Your task to perform on an android device: Open network settings Image 0: 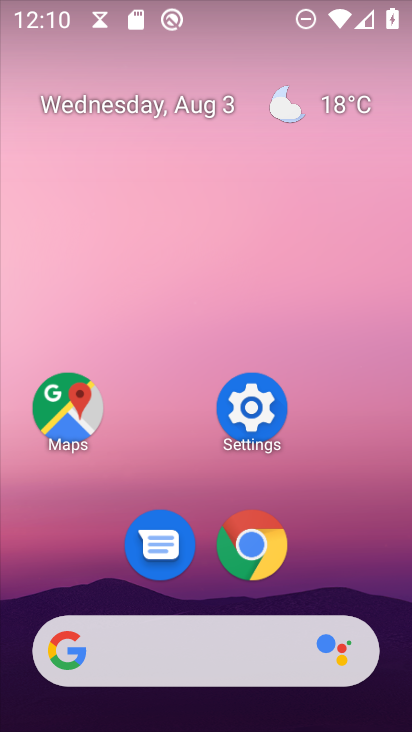
Step 0: click (247, 410)
Your task to perform on an android device: Open network settings Image 1: 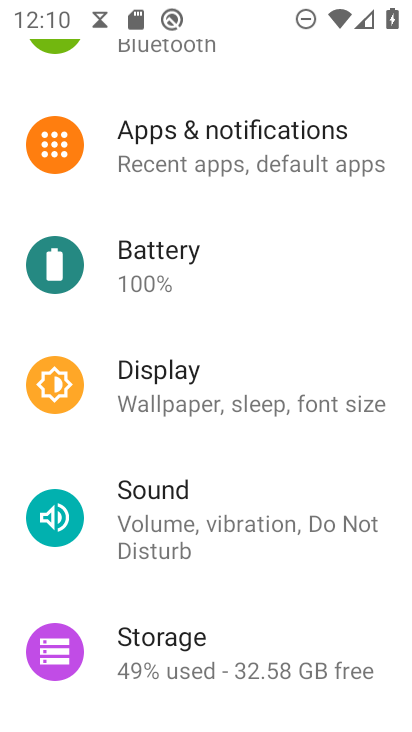
Step 1: drag from (299, 246) to (309, 691)
Your task to perform on an android device: Open network settings Image 2: 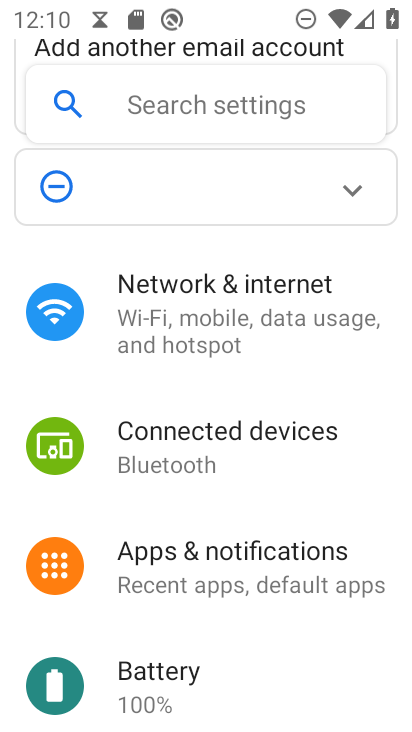
Step 2: click (229, 318)
Your task to perform on an android device: Open network settings Image 3: 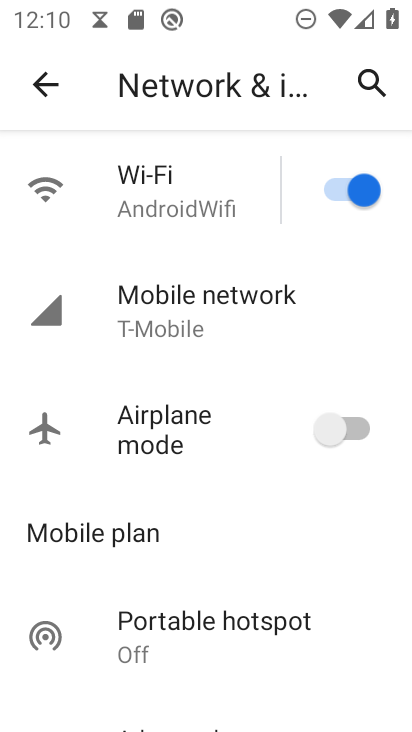
Step 3: click (193, 322)
Your task to perform on an android device: Open network settings Image 4: 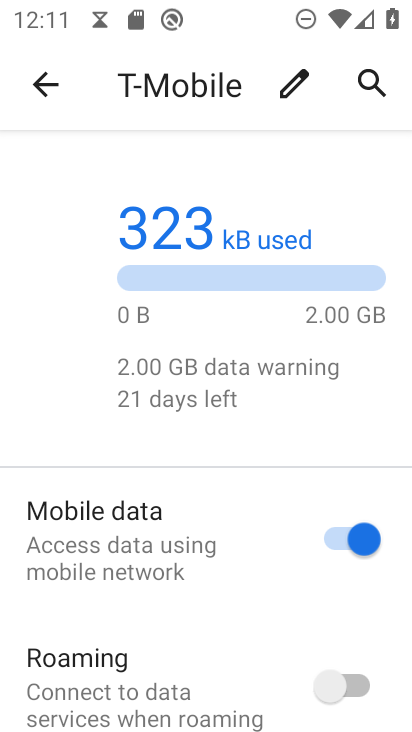
Step 4: task complete